Your task to perform on an android device: add a contact Image 0: 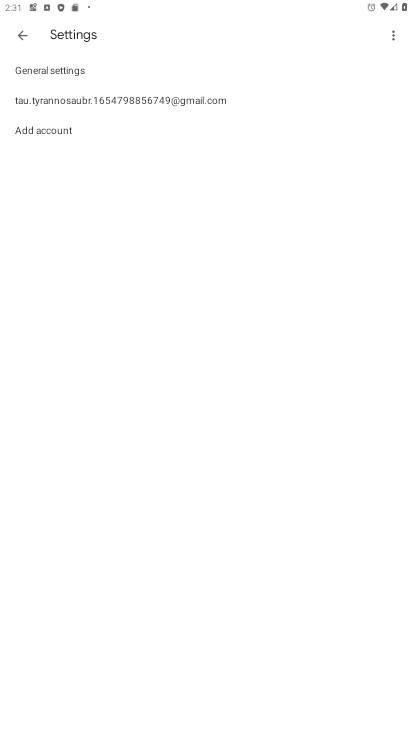
Step 0: press home button
Your task to perform on an android device: add a contact Image 1: 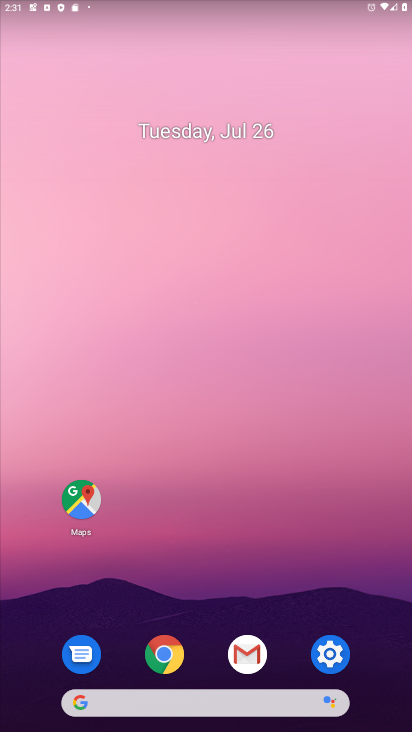
Step 1: drag from (265, 714) to (247, 200)
Your task to perform on an android device: add a contact Image 2: 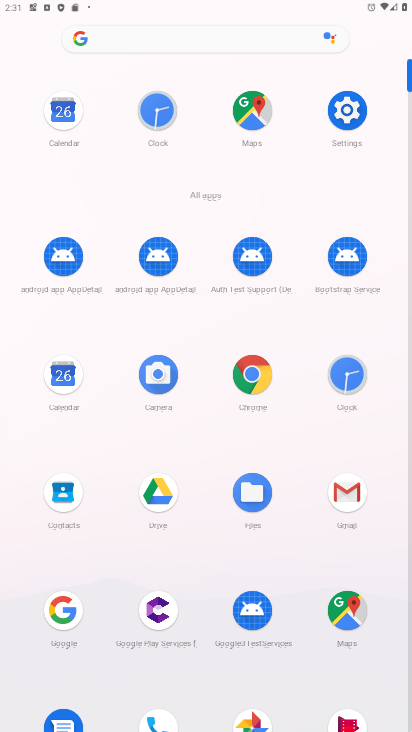
Step 2: click (157, 722)
Your task to perform on an android device: add a contact Image 3: 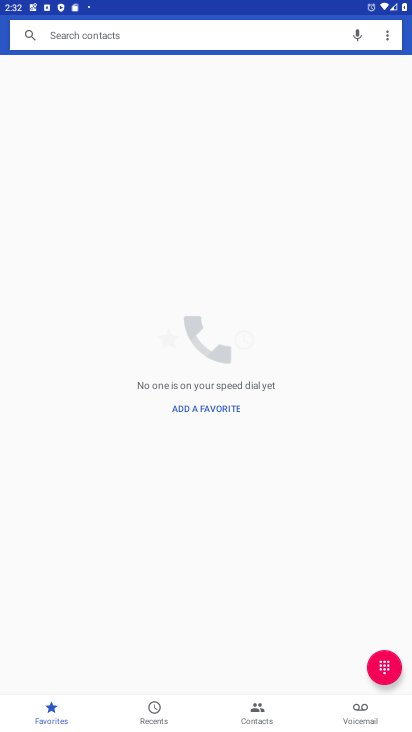
Step 3: click (253, 704)
Your task to perform on an android device: add a contact Image 4: 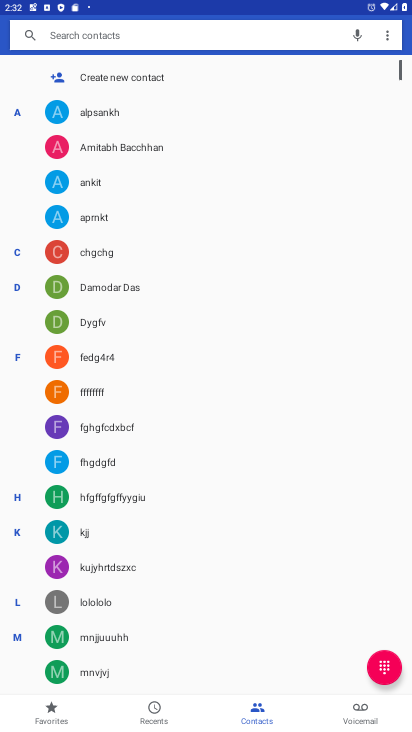
Step 4: click (141, 80)
Your task to perform on an android device: add a contact Image 5: 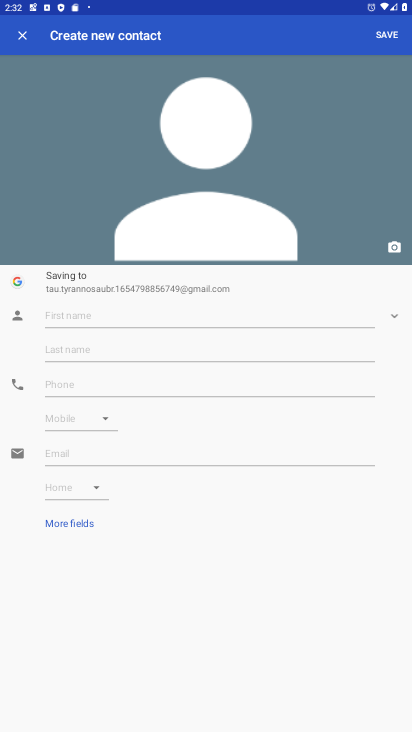
Step 5: click (121, 320)
Your task to perform on an android device: add a contact Image 6: 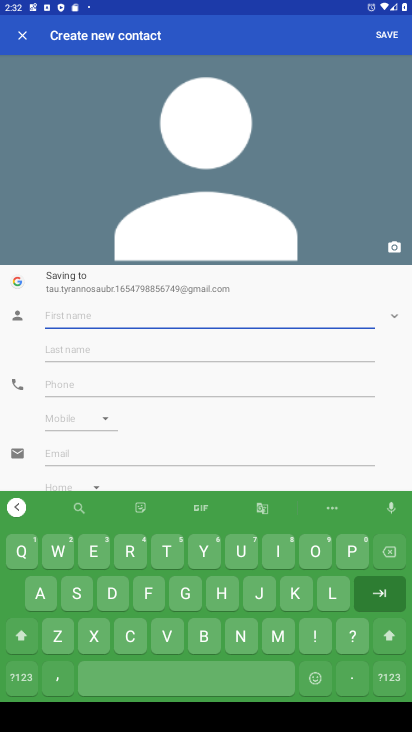
Step 6: click (145, 549)
Your task to perform on an android device: add a contact Image 7: 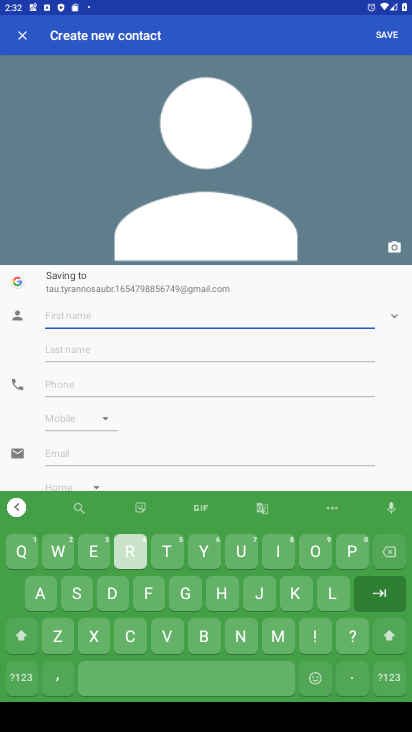
Step 7: click (185, 592)
Your task to perform on an android device: add a contact Image 8: 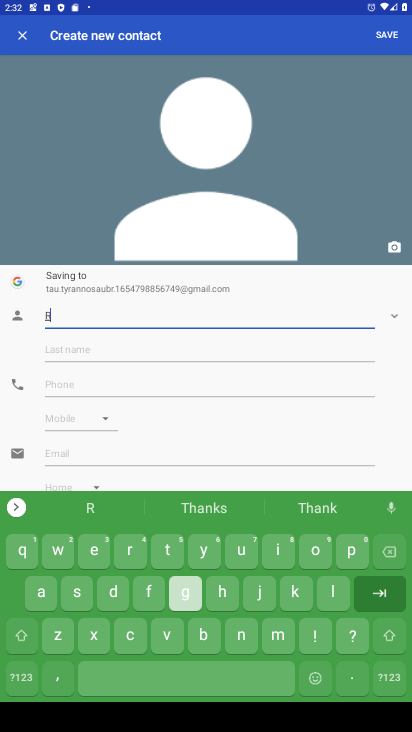
Step 8: click (101, 657)
Your task to perform on an android device: add a contact Image 9: 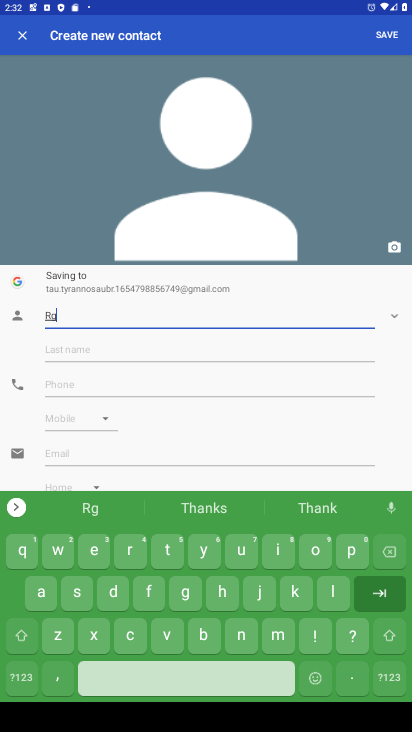
Step 9: click (88, 658)
Your task to perform on an android device: add a contact Image 10: 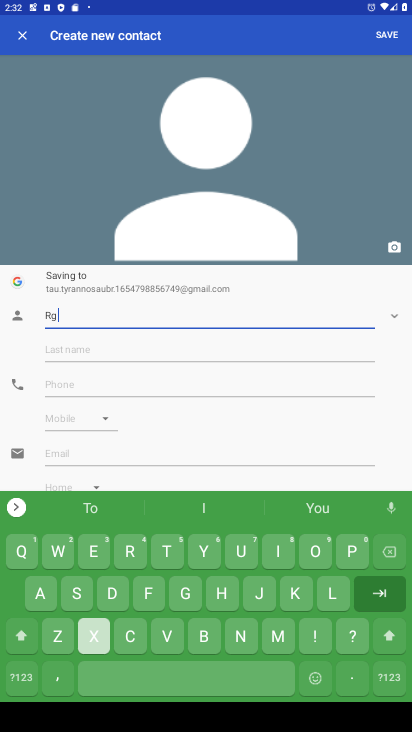
Step 10: click (110, 638)
Your task to perform on an android device: add a contact Image 11: 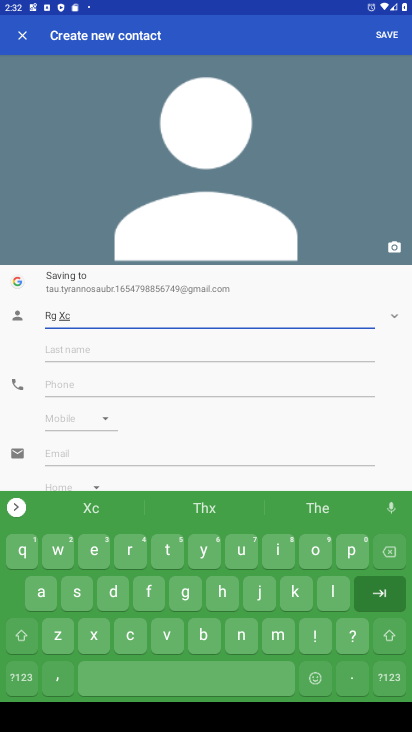
Step 11: click (75, 374)
Your task to perform on an android device: add a contact Image 12: 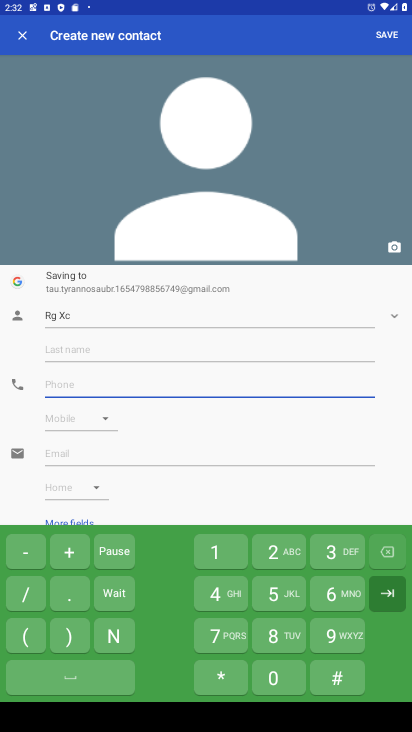
Step 12: click (343, 643)
Your task to perform on an android device: add a contact Image 13: 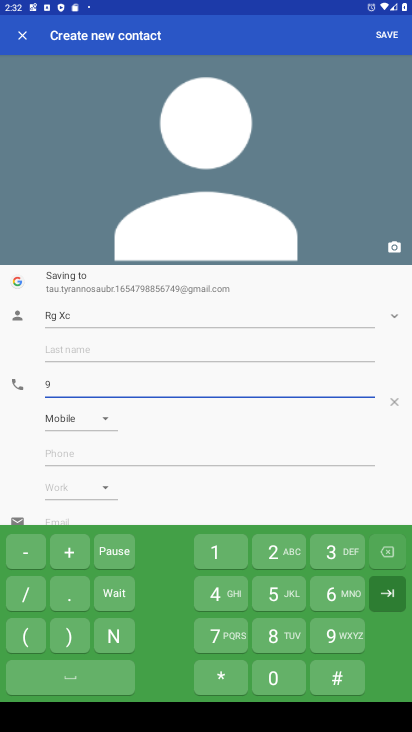
Step 13: click (275, 639)
Your task to perform on an android device: add a contact Image 14: 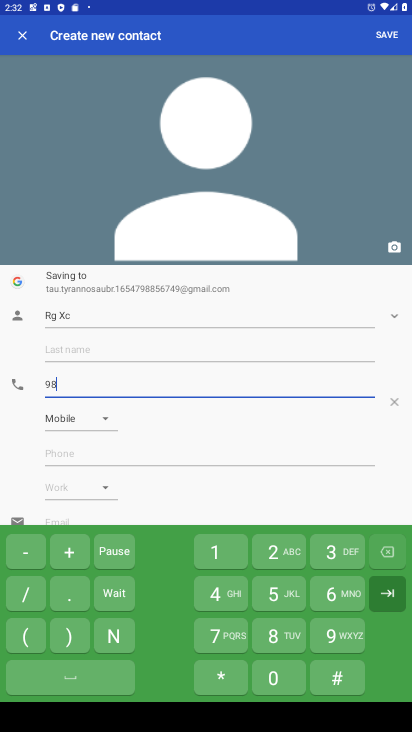
Step 14: click (234, 633)
Your task to perform on an android device: add a contact Image 15: 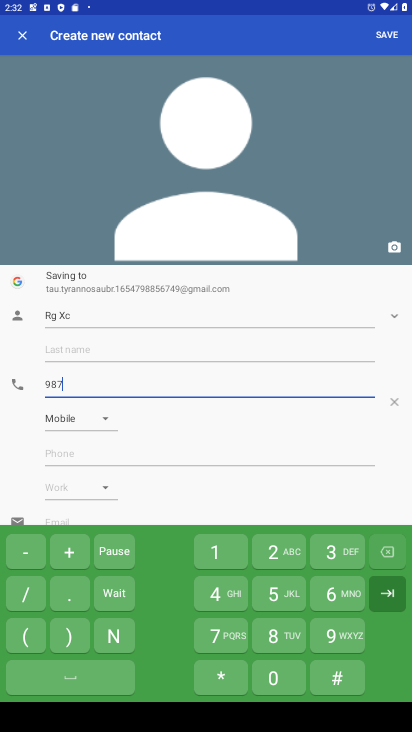
Step 15: click (277, 599)
Your task to perform on an android device: add a contact Image 16: 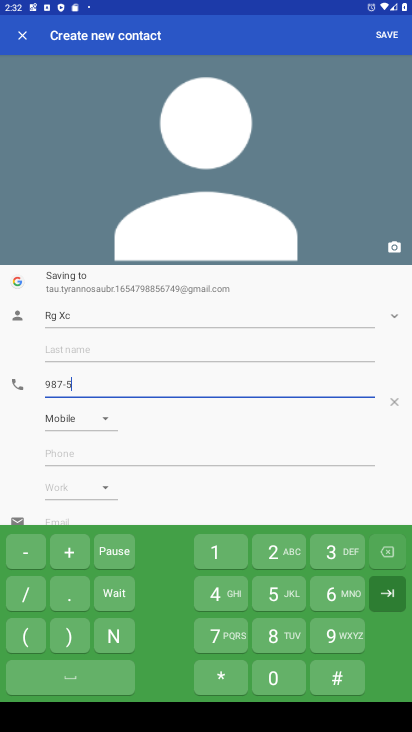
Step 16: click (264, 545)
Your task to perform on an android device: add a contact Image 17: 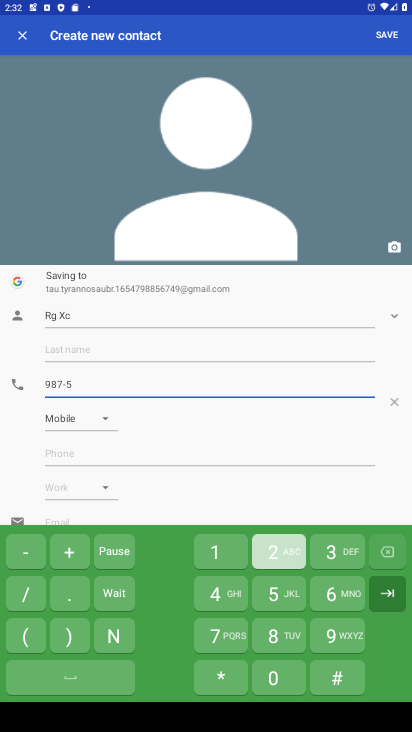
Step 17: click (240, 580)
Your task to perform on an android device: add a contact Image 18: 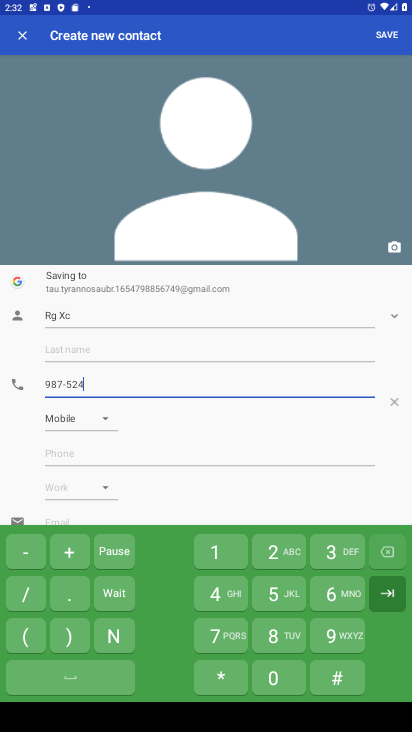
Step 18: click (332, 626)
Your task to perform on an android device: add a contact Image 19: 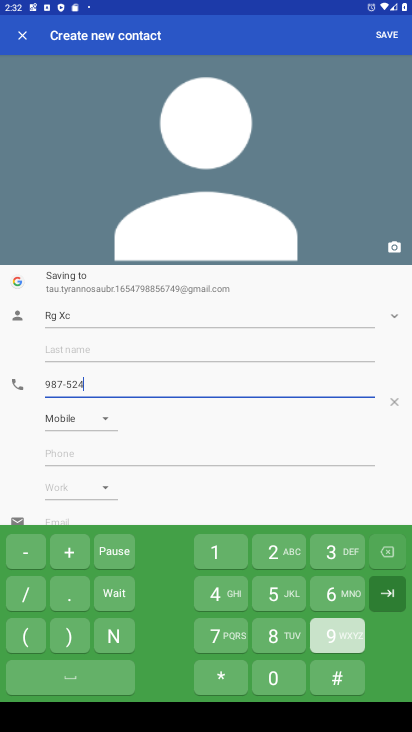
Step 19: click (292, 656)
Your task to perform on an android device: add a contact Image 20: 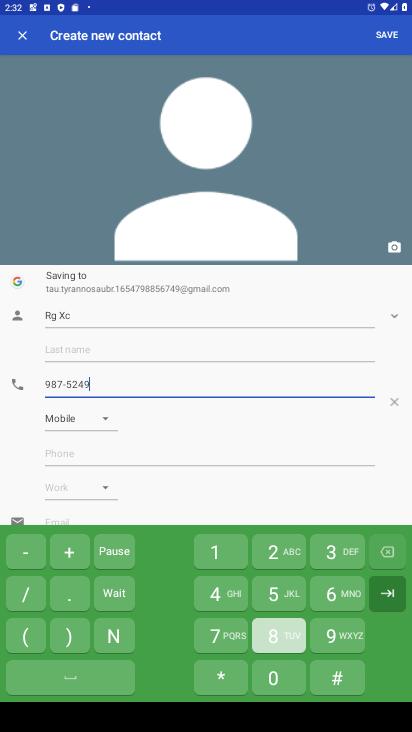
Step 20: click (294, 622)
Your task to perform on an android device: add a contact Image 21: 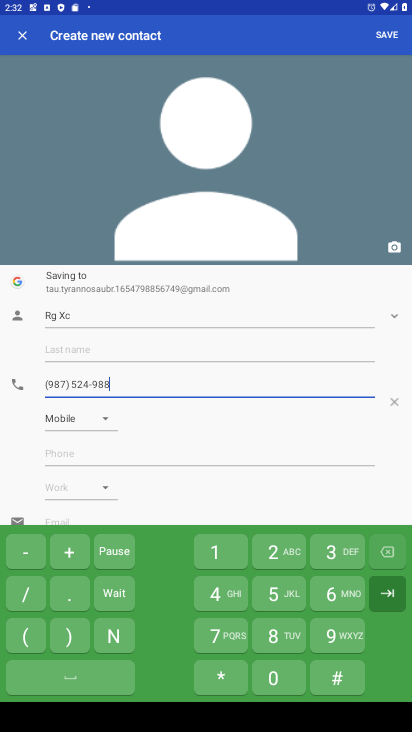
Step 21: click (330, 597)
Your task to perform on an android device: add a contact Image 22: 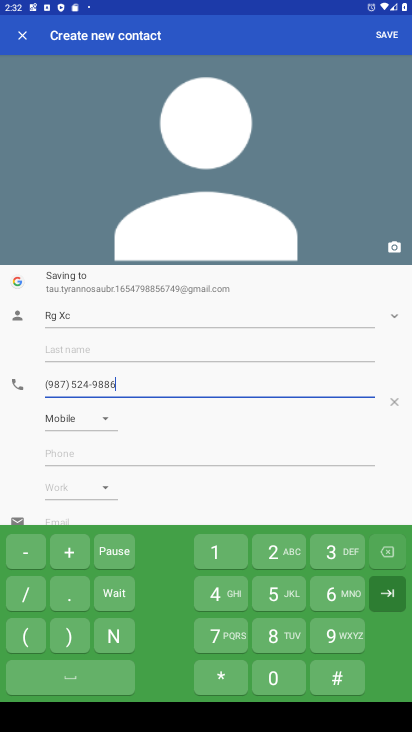
Step 22: click (389, 30)
Your task to perform on an android device: add a contact Image 23: 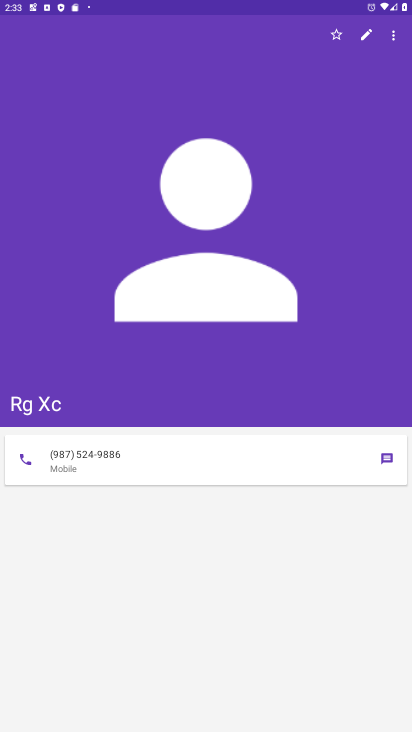
Step 23: task complete